Your task to perform on an android device: uninstall "DuckDuckGo Privacy Browser" Image 0: 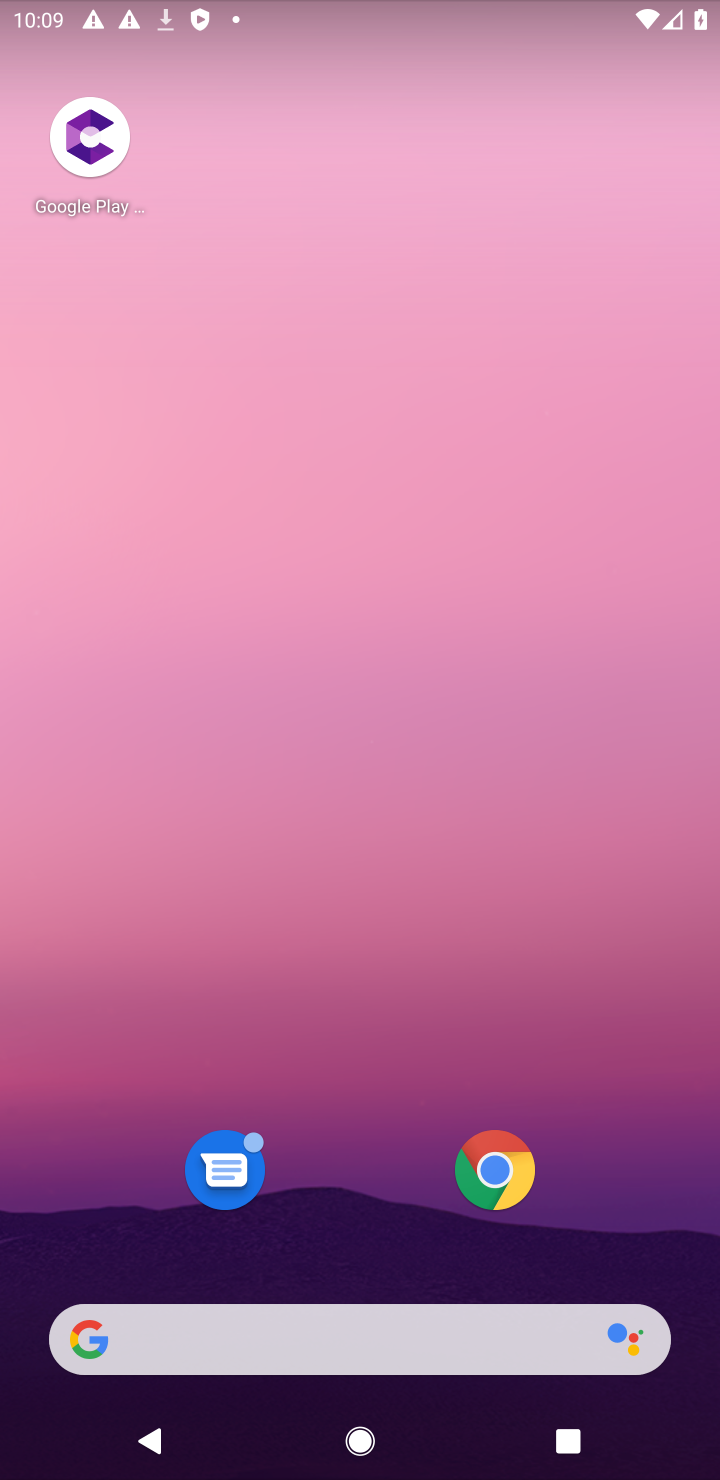
Step 0: drag from (327, 1233) to (312, 37)
Your task to perform on an android device: uninstall "DuckDuckGo Privacy Browser" Image 1: 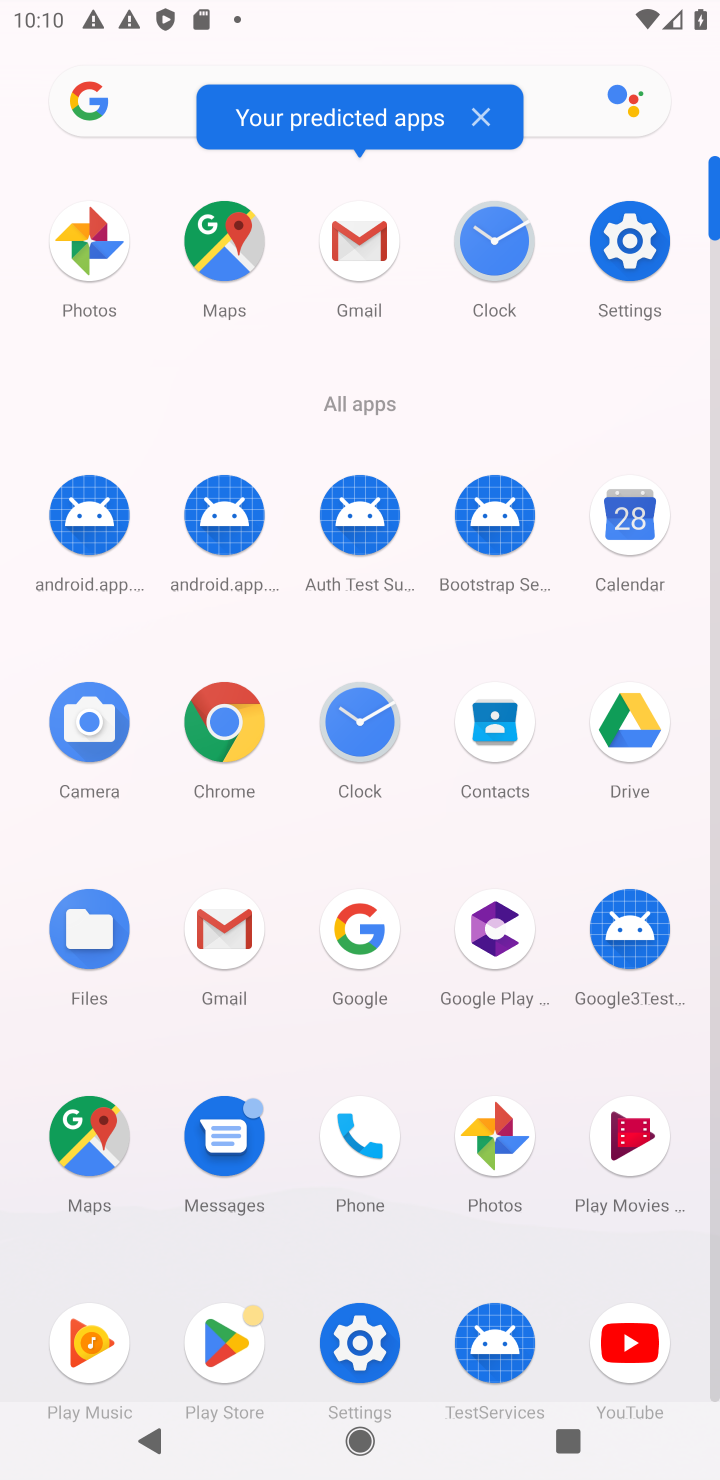
Step 1: click (216, 1322)
Your task to perform on an android device: uninstall "DuckDuckGo Privacy Browser" Image 2: 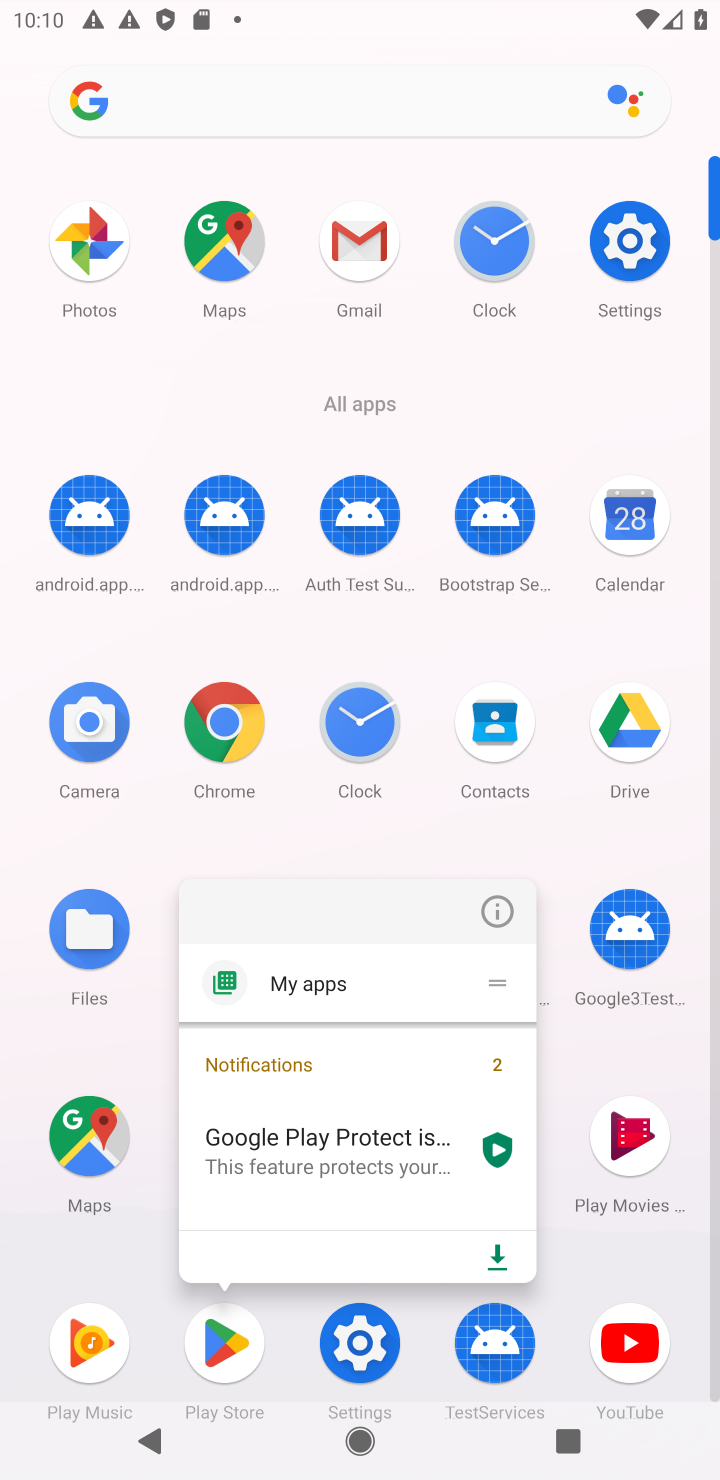
Step 2: click (215, 1318)
Your task to perform on an android device: uninstall "DuckDuckGo Privacy Browser" Image 3: 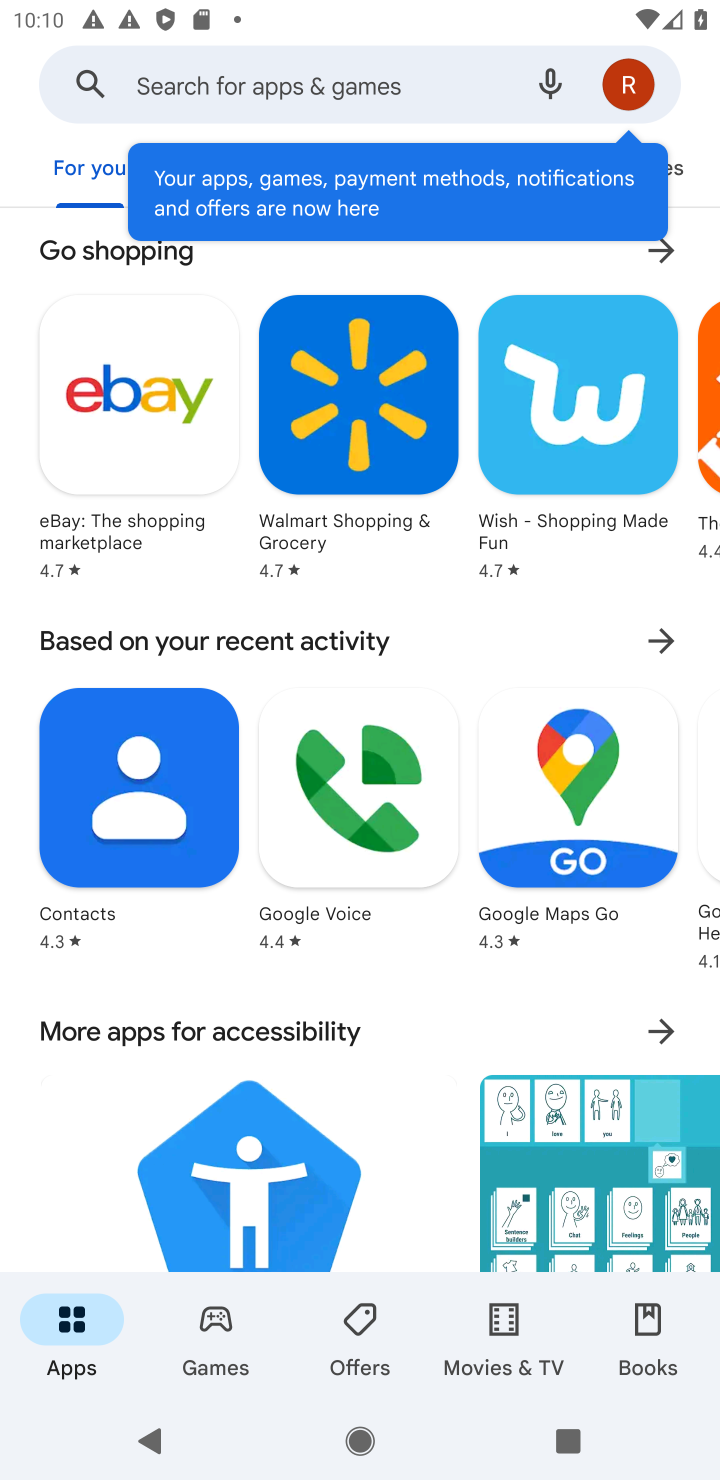
Step 3: click (356, 89)
Your task to perform on an android device: uninstall "DuckDuckGo Privacy Browser" Image 4: 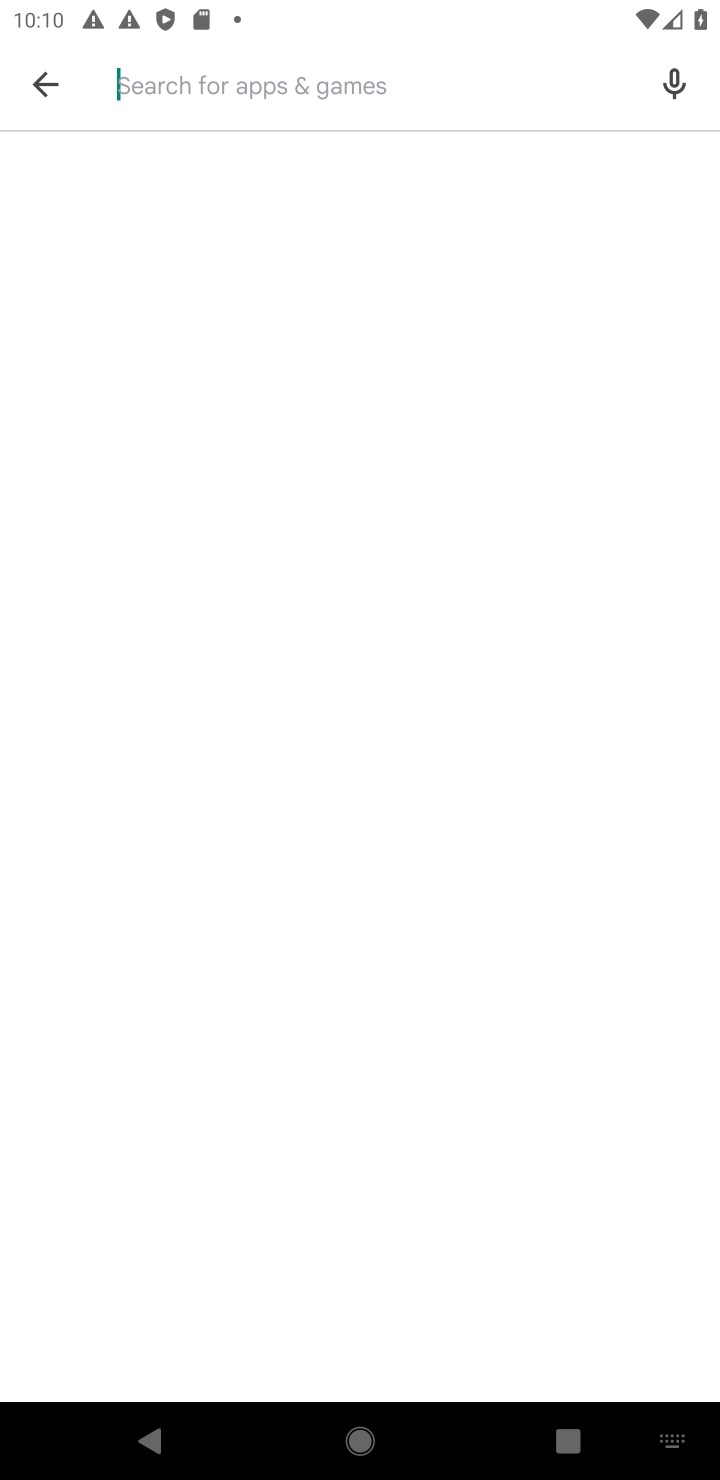
Step 4: type "Duckduckgo"
Your task to perform on an android device: uninstall "DuckDuckGo Privacy Browser" Image 5: 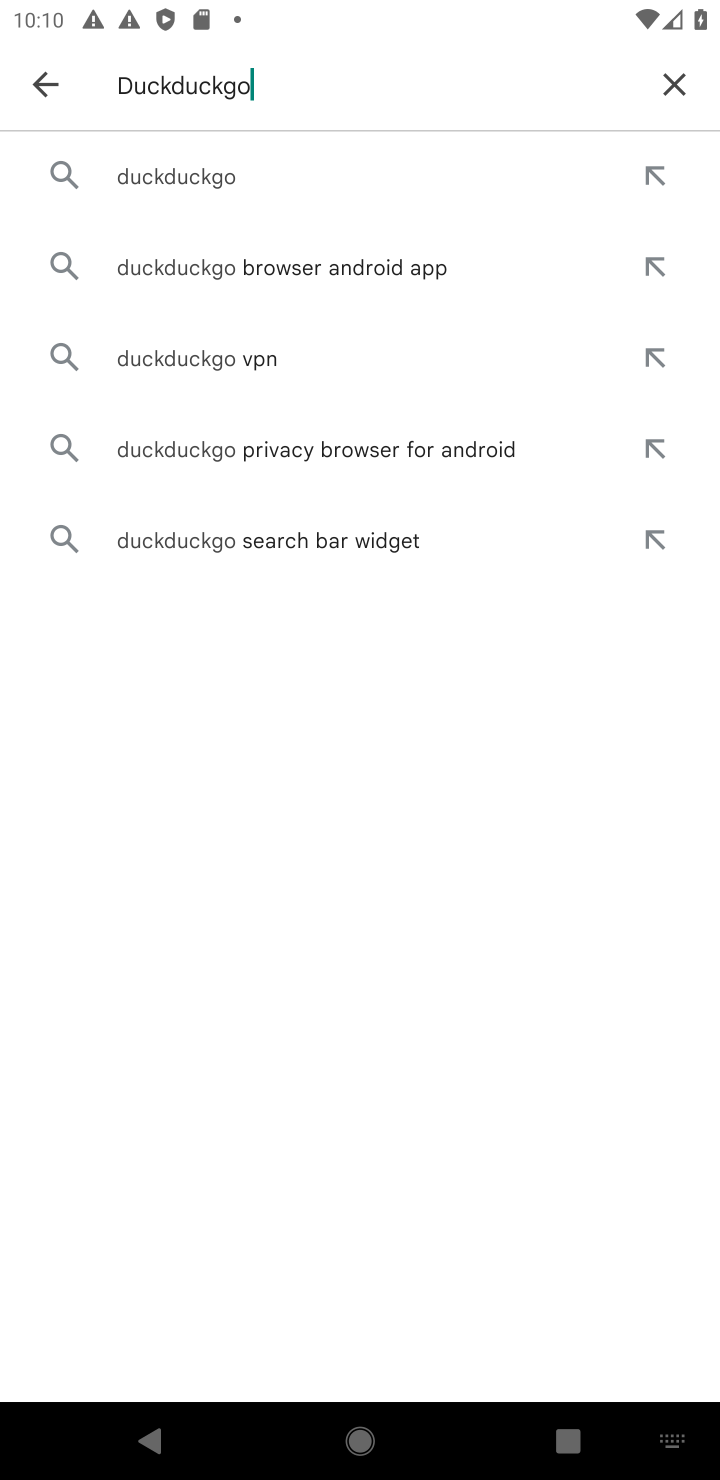
Step 5: click (217, 194)
Your task to perform on an android device: uninstall "DuckDuckGo Privacy Browser" Image 6: 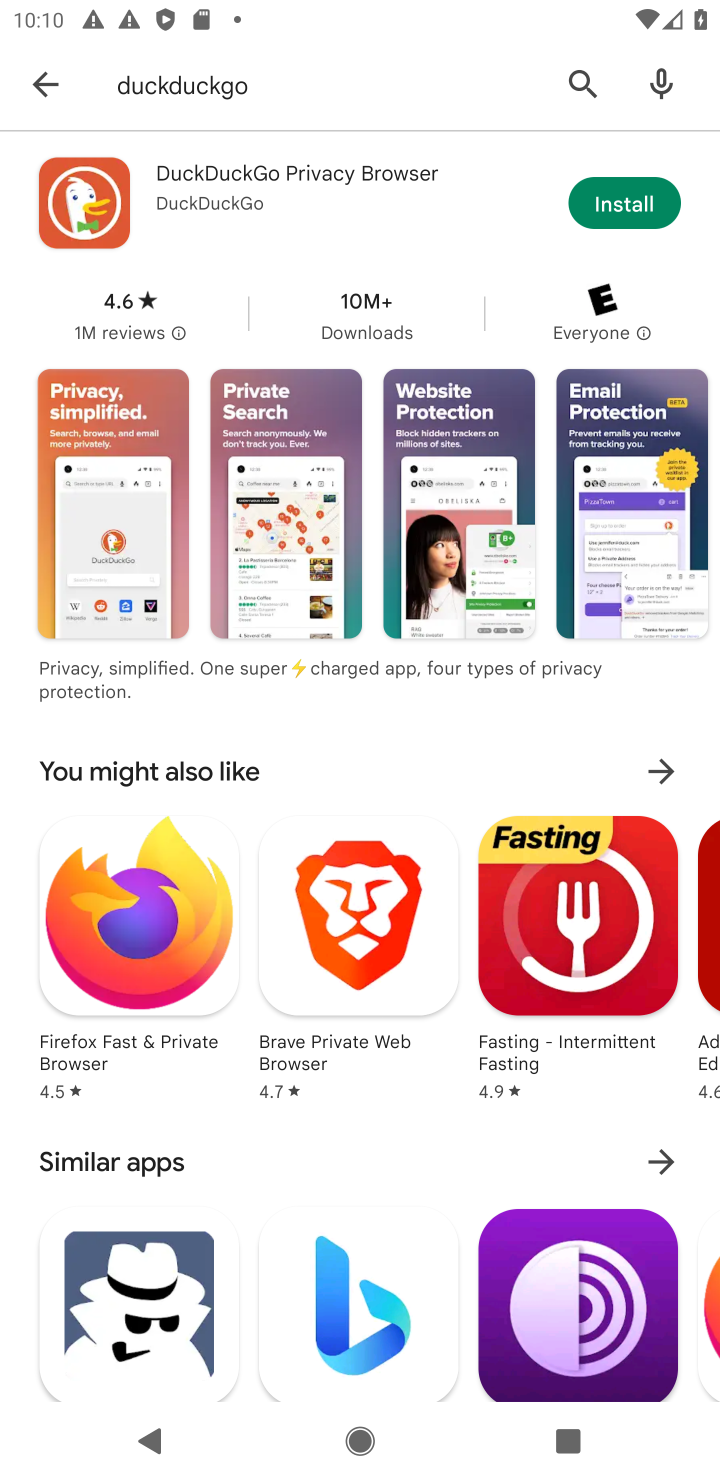
Step 6: task complete